Your task to perform on an android device: all mails in gmail Image 0: 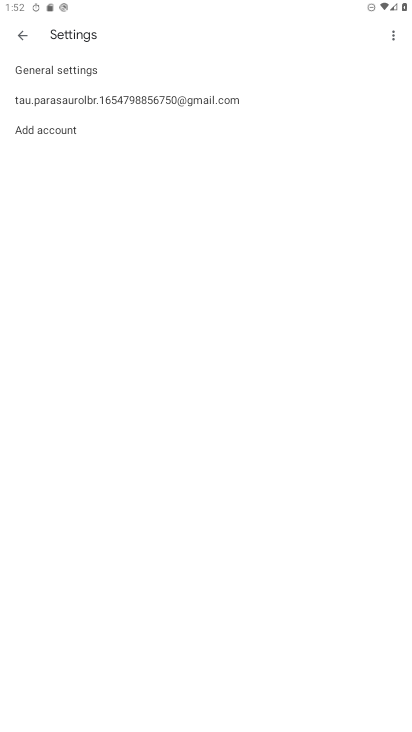
Step 0: press home button
Your task to perform on an android device: all mails in gmail Image 1: 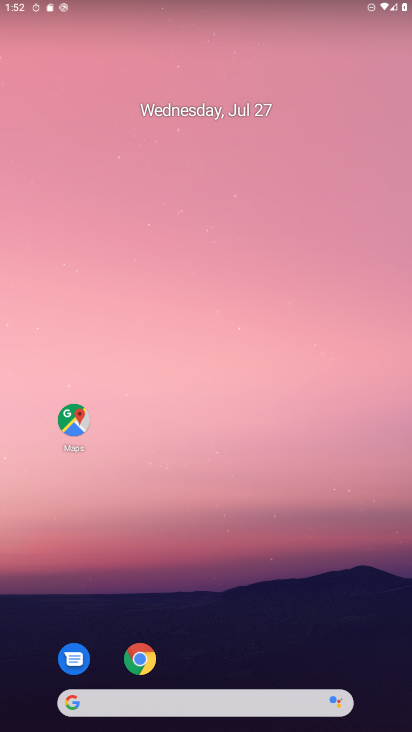
Step 1: drag from (309, 590) to (294, 9)
Your task to perform on an android device: all mails in gmail Image 2: 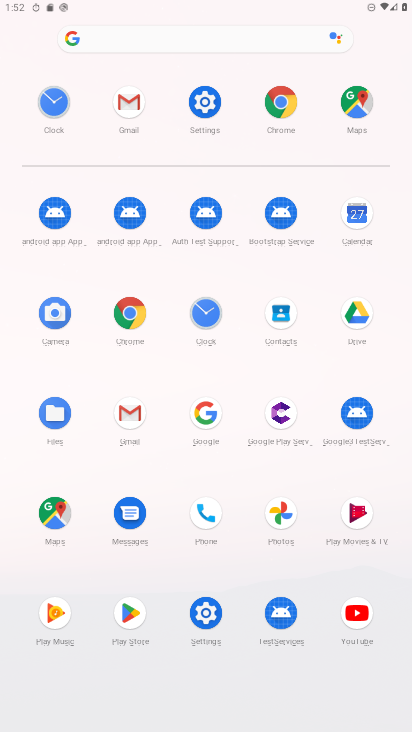
Step 2: click (131, 101)
Your task to perform on an android device: all mails in gmail Image 3: 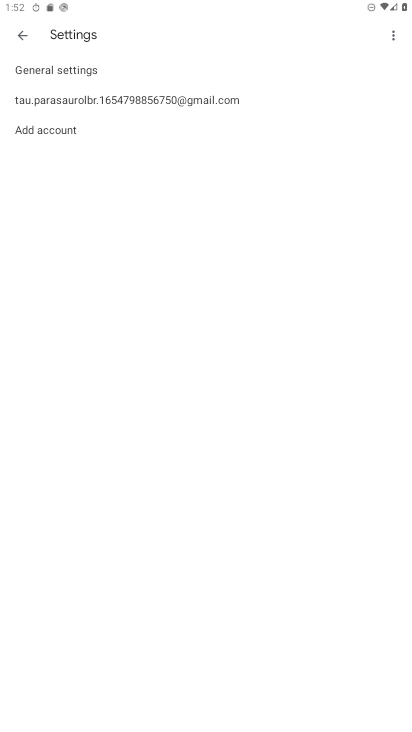
Step 3: click (27, 41)
Your task to perform on an android device: all mails in gmail Image 4: 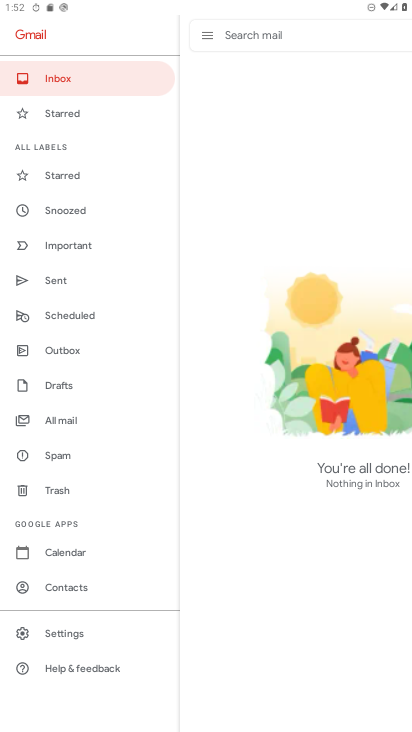
Step 4: click (58, 429)
Your task to perform on an android device: all mails in gmail Image 5: 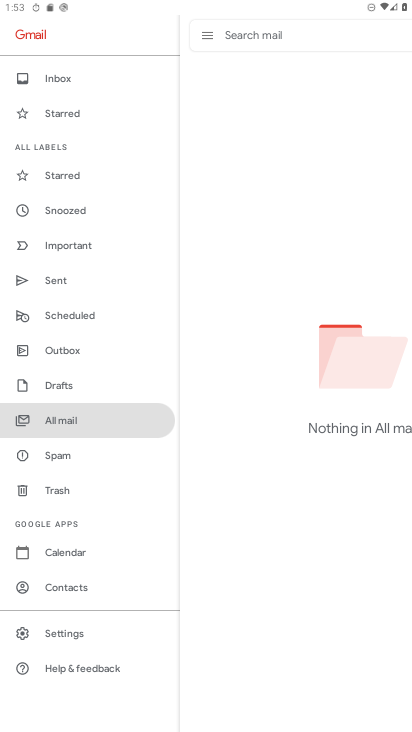
Step 5: task complete